Your task to perform on an android device: toggle priority inbox in the gmail app Image 0: 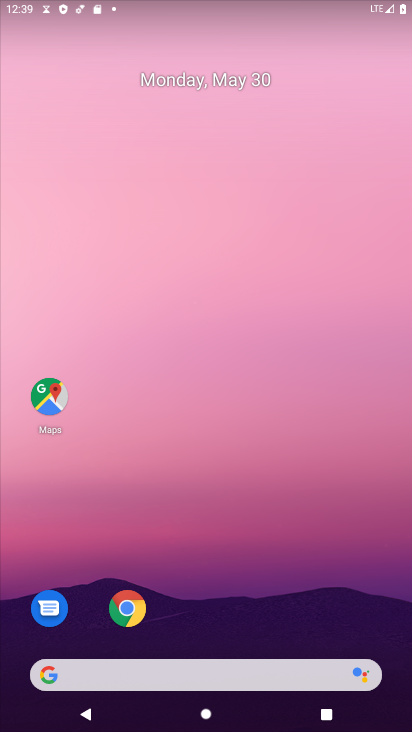
Step 0: drag from (204, 628) to (287, 124)
Your task to perform on an android device: toggle priority inbox in the gmail app Image 1: 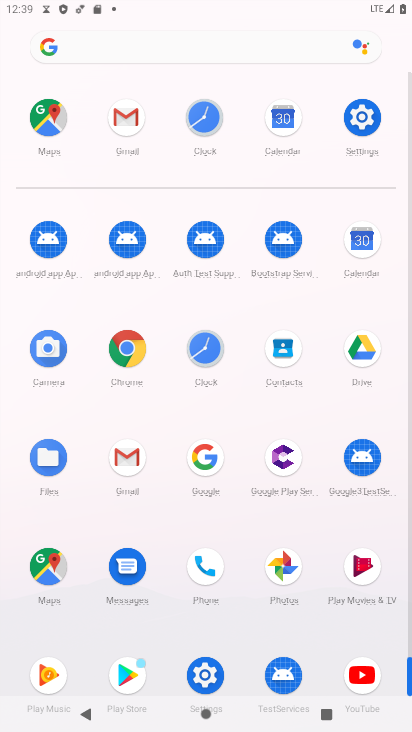
Step 1: click (132, 473)
Your task to perform on an android device: toggle priority inbox in the gmail app Image 2: 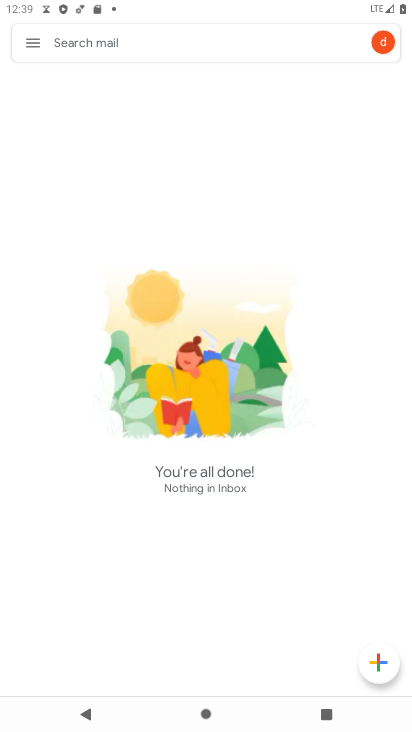
Step 2: click (32, 37)
Your task to perform on an android device: toggle priority inbox in the gmail app Image 3: 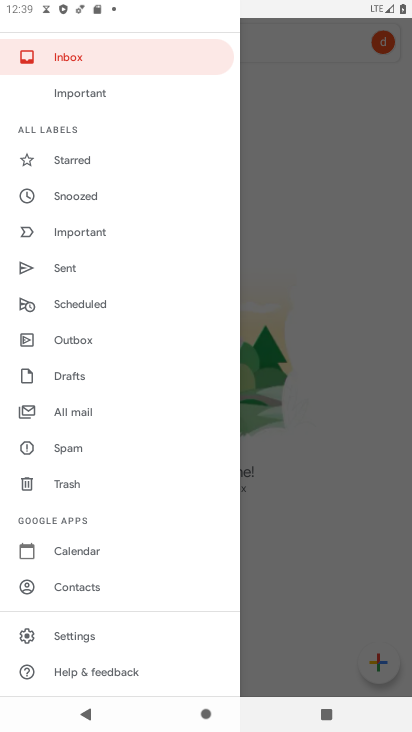
Step 3: click (82, 633)
Your task to perform on an android device: toggle priority inbox in the gmail app Image 4: 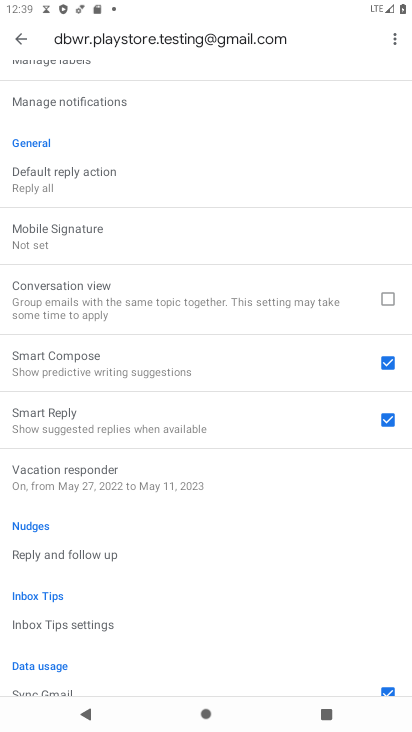
Step 4: drag from (125, 143) to (194, 538)
Your task to perform on an android device: toggle priority inbox in the gmail app Image 5: 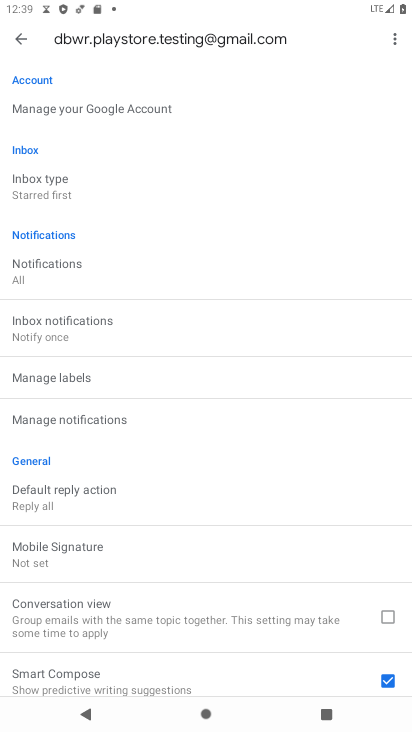
Step 5: click (86, 187)
Your task to perform on an android device: toggle priority inbox in the gmail app Image 6: 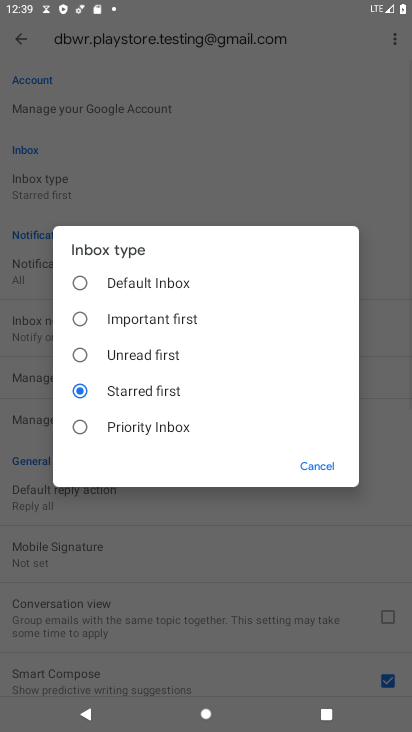
Step 6: click (128, 425)
Your task to perform on an android device: toggle priority inbox in the gmail app Image 7: 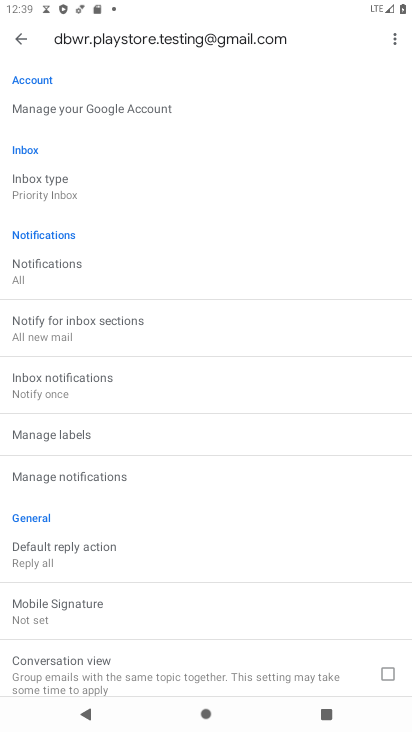
Step 7: task complete